Your task to perform on an android device: Open display settings Image 0: 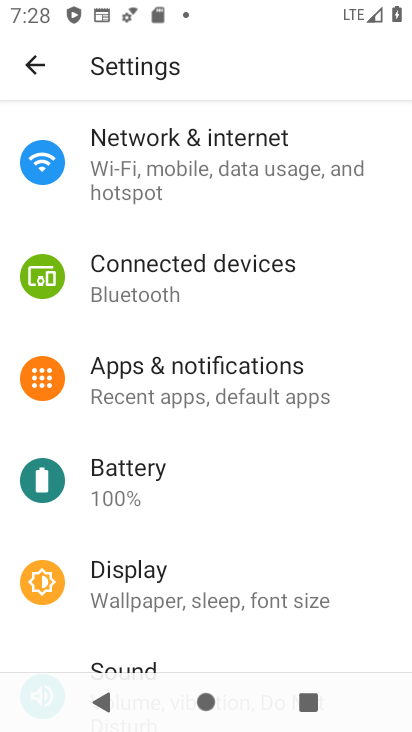
Step 0: drag from (225, 217) to (264, 531)
Your task to perform on an android device: Open display settings Image 1: 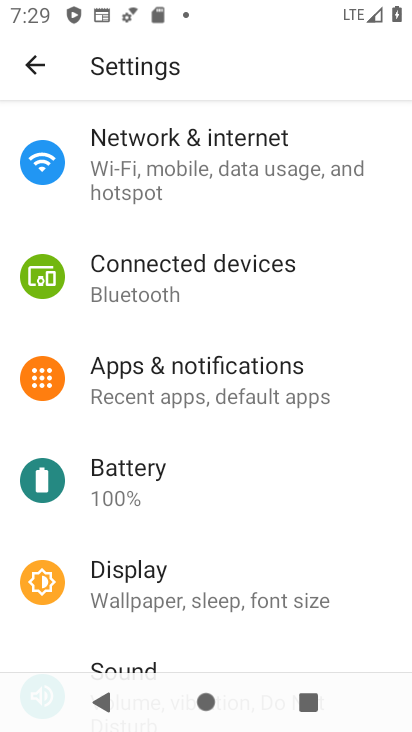
Step 1: drag from (250, 293) to (275, 479)
Your task to perform on an android device: Open display settings Image 2: 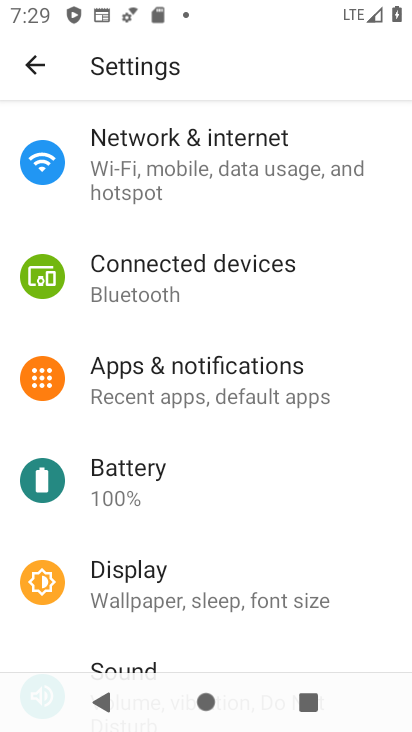
Step 2: click (185, 582)
Your task to perform on an android device: Open display settings Image 3: 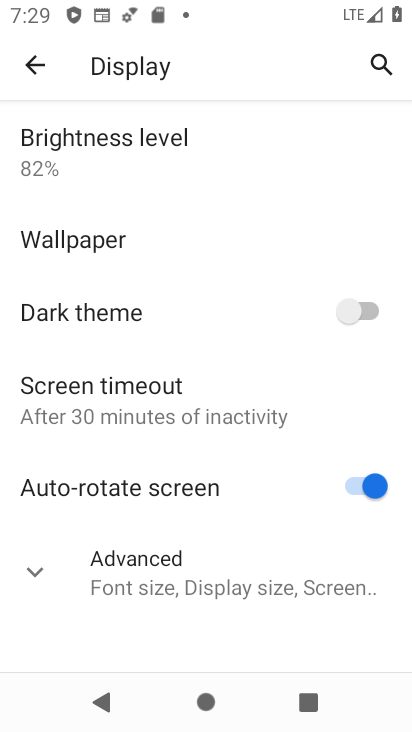
Step 3: task complete